Your task to perform on an android device: Open calendar and show me the second week of next month Image 0: 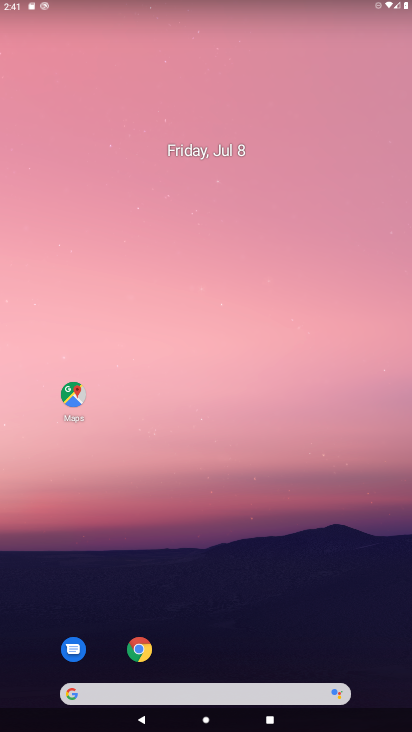
Step 0: drag from (376, 664) to (310, 131)
Your task to perform on an android device: Open calendar and show me the second week of next month Image 1: 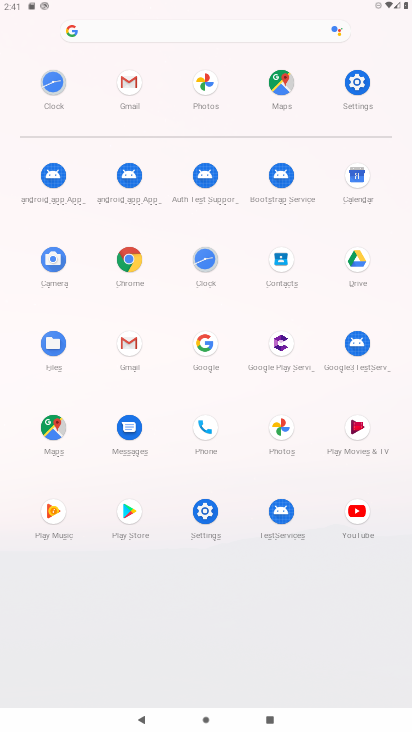
Step 1: click (355, 174)
Your task to perform on an android device: Open calendar and show me the second week of next month Image 2: 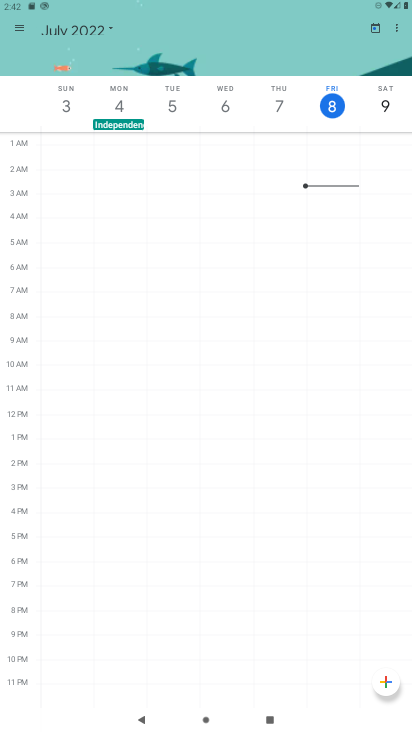
Step 2: click (108, 27)
Your task to perform on an android device: Open calendar and show me the second week of next month Image 3: 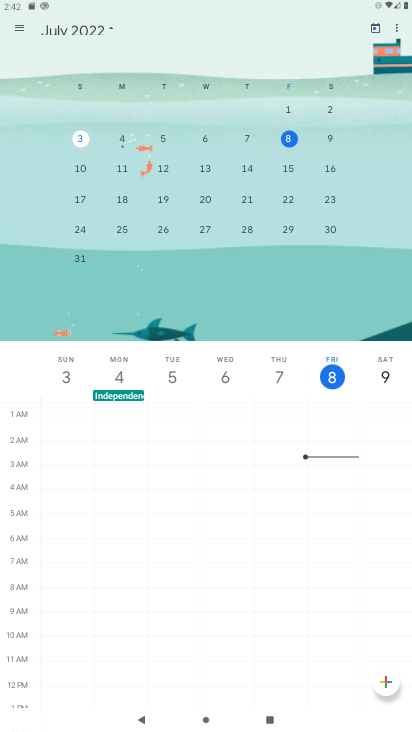
Step 3: drag from (335, 207) to (54, 205)
Your task to perform on an android device: Open calendar and show me the second week of next month Image 4: 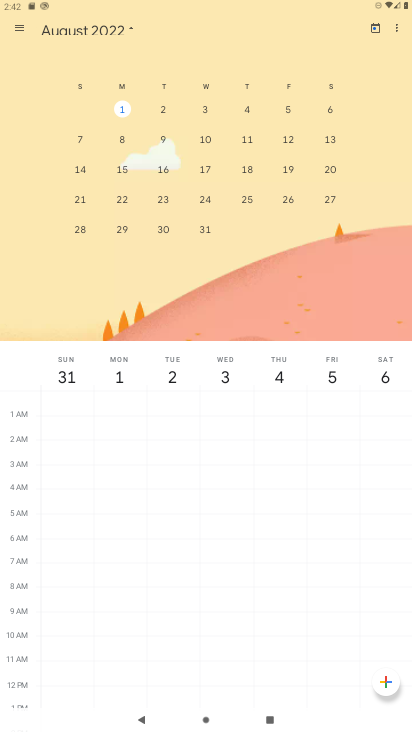
Step 4: click (80, 168)
Your task to perform on an android device: Open calendar and show me the second week of next month Image 5: 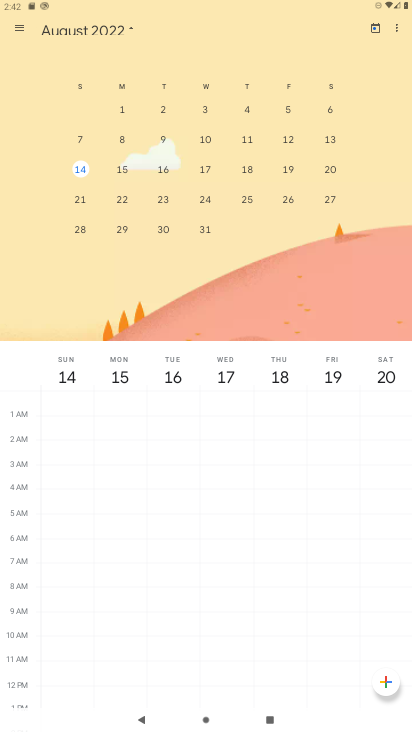
Step 5: task complete